Your task to perform on an android device: Open Google Maps Image 0: 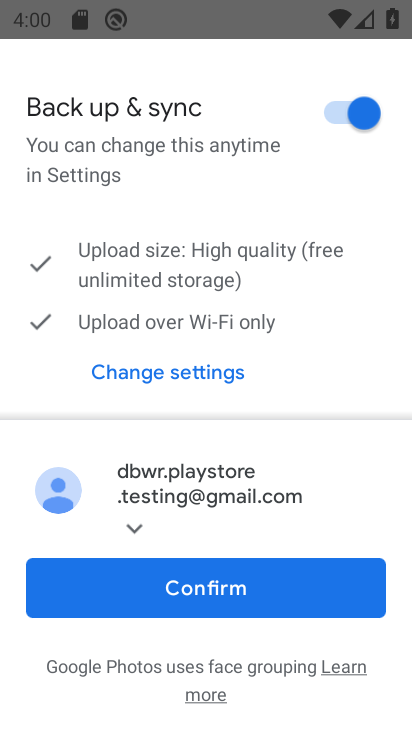
Step 0: press home button
Your task to perform on an android device: Open Google Maps Image 1: 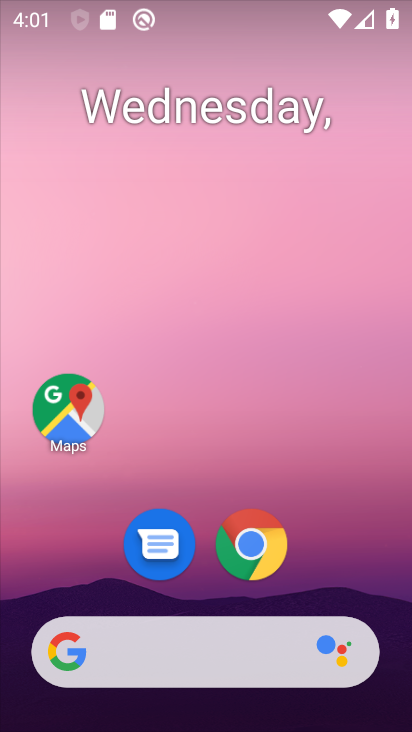
Step 1: click (73, 424)
Your task to perform on an android device: Open Google Maps Image 2: 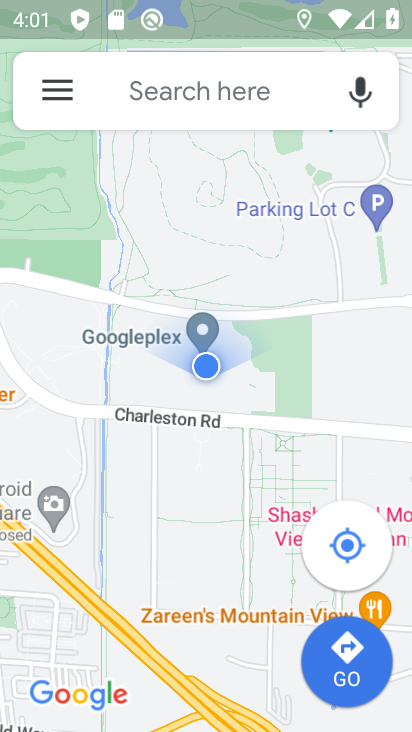
Step 2: task complete